Your task to perform on an android device: Search for usb-b on target.com, select the first entry, and add it to the cart. Image 0: 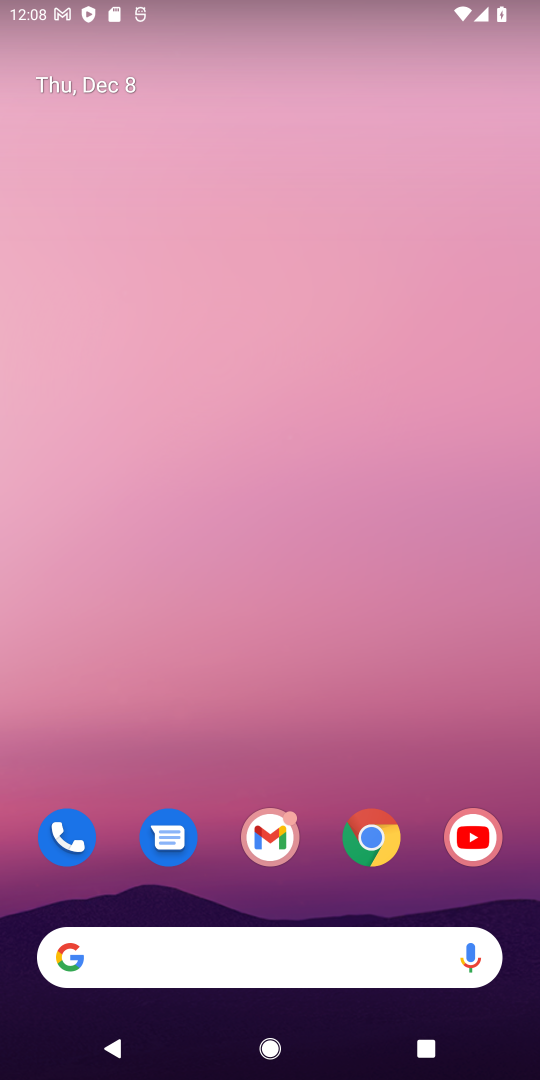
Step 0: click (373, 841)
Your task to perform on an android device: Search for usb-b on target.com, select the first entry, and add it to the cart. Image 1: 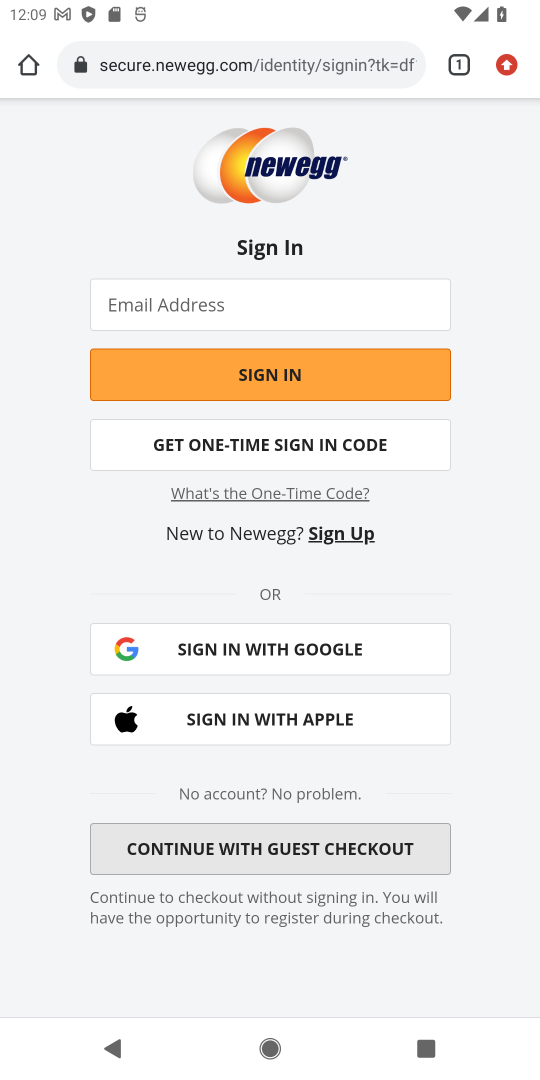
Step 1: click (210, 74)
Your task to perform on an android device: Search for usb-b on target.com, select the first entry, and add it to the cart. Image 2: 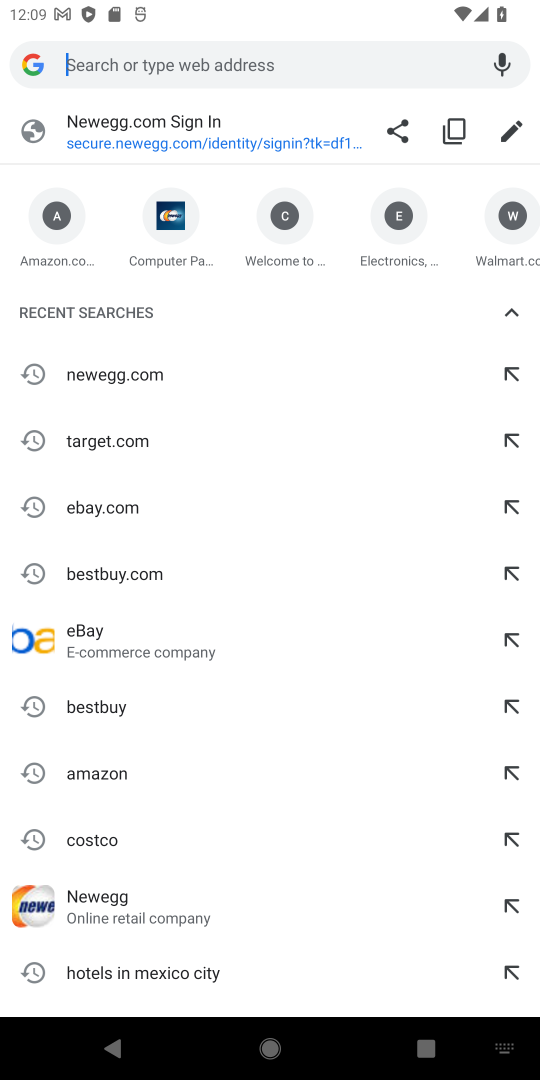
Step 2: type "target.com"
Your task to perform on an android device: Search for usb-b on target.com, select the first entry, and add it to the cart. Image 3: 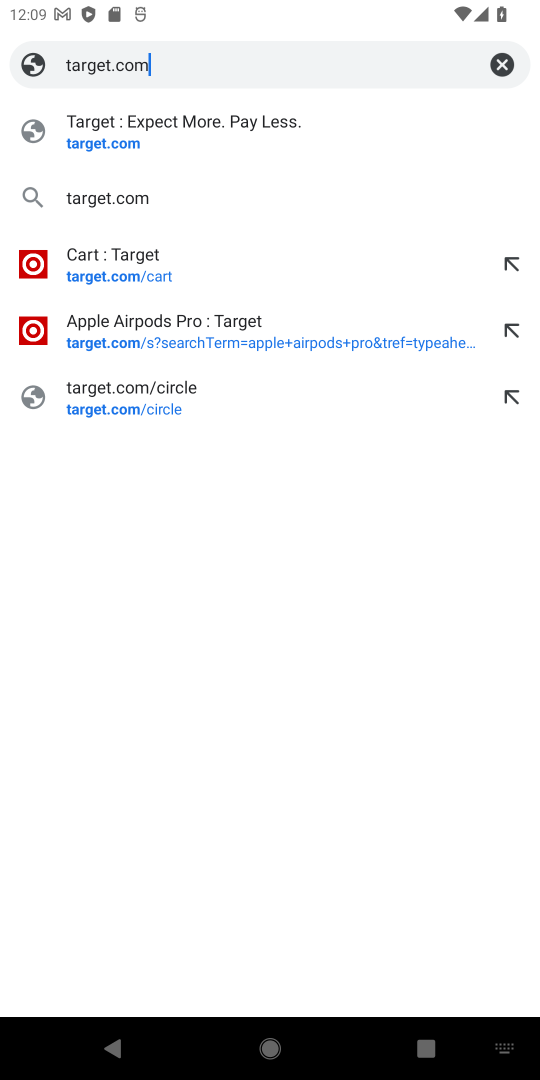
Step 3: click (156, 128)
Your task to perform on an android device: Search for usb-b on target.com, select the first entry, and add it to the cart. Image 4: 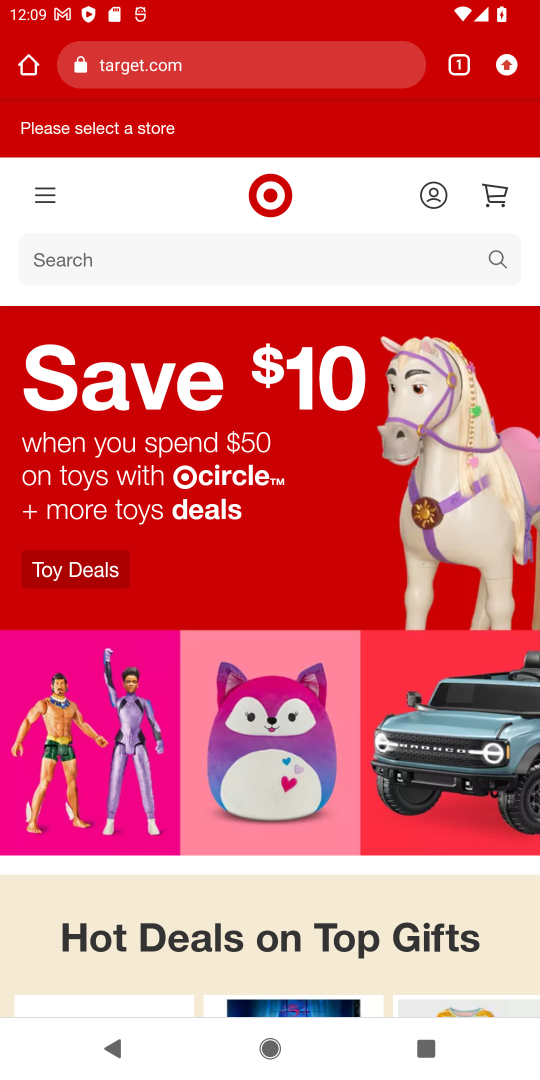
Step 4: click (127, 268)
Your task to perform on an android device: Search for usb-b on target.com, select the first entry, and add it to the cart. Image 5: 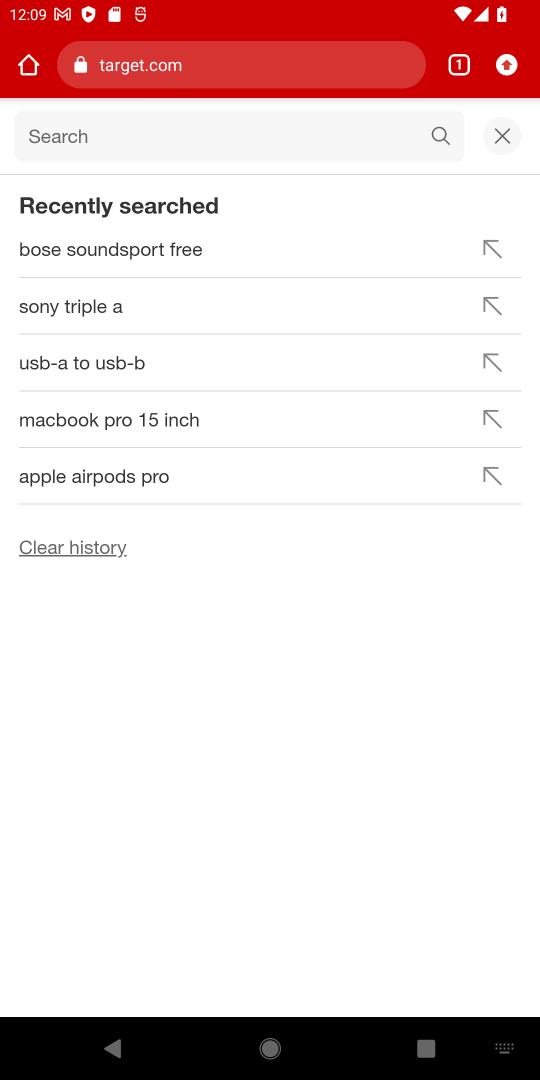
Step 5: type "usb-b"
Your task to perform on an android device: Search for usb-b on target.com, select the first entry, and add it to the cart. Image 6: 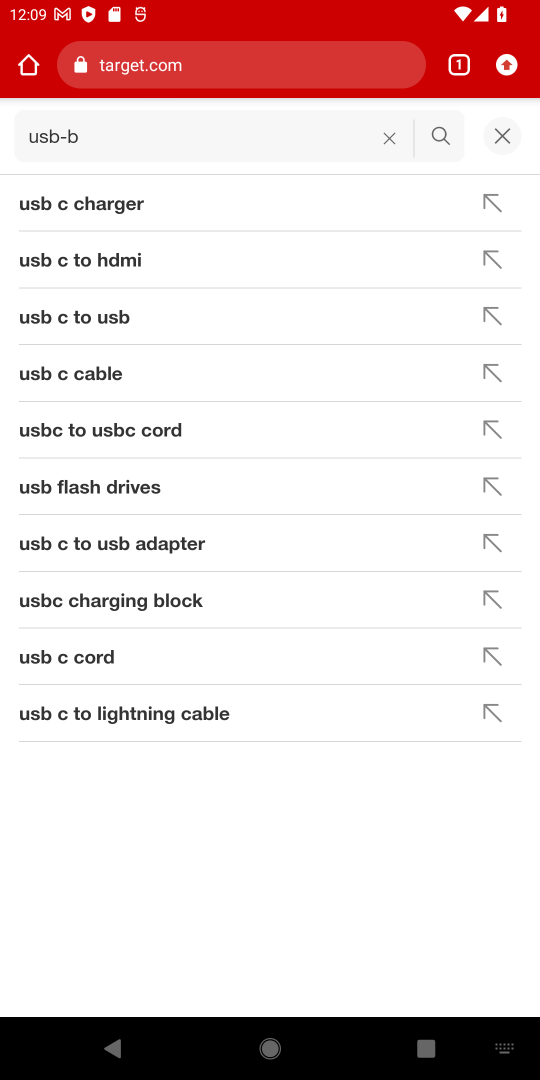
Step 6: press enter
Your task to perform on an android device: Search for usb-b on target.com, select the first entry, and add it to the cart. Image 7: 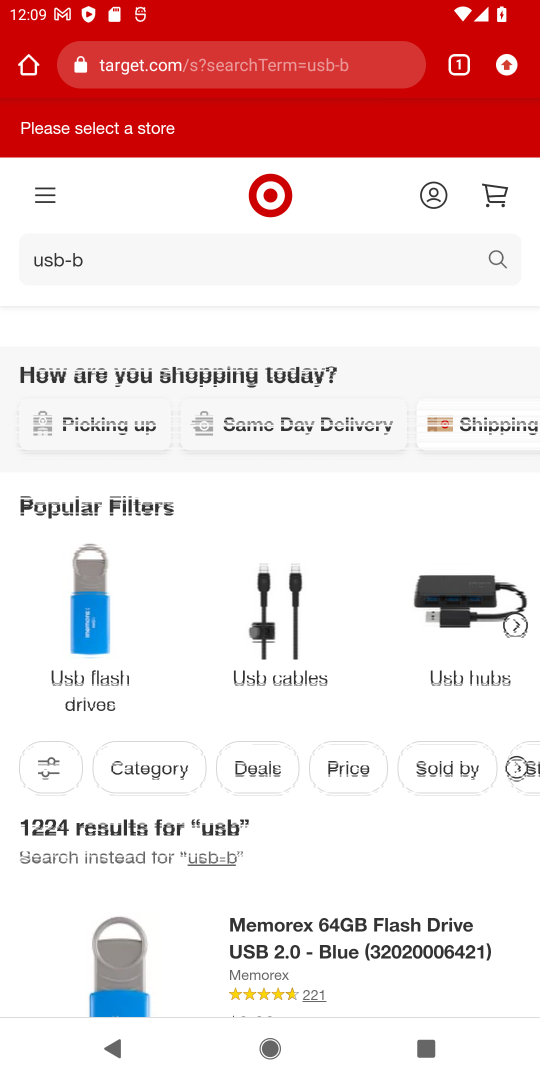
Step 7: drag from (350, 921) to (311, 575)
Your task to perform on an android device: Search for usb-b on target.com, select the first entry, and add it to the cart. Image 8: 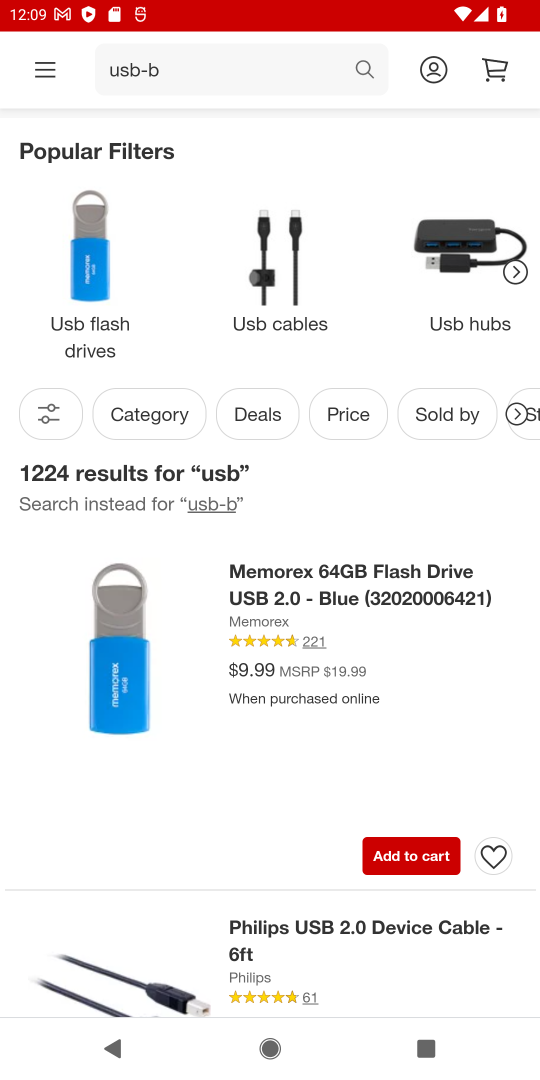
Step 8: drag from (405, 705) to (365, 474)
Your task to perform on an android device: Search for usb-b on target.com, select the first entry, and add it to the cart. Image 9: 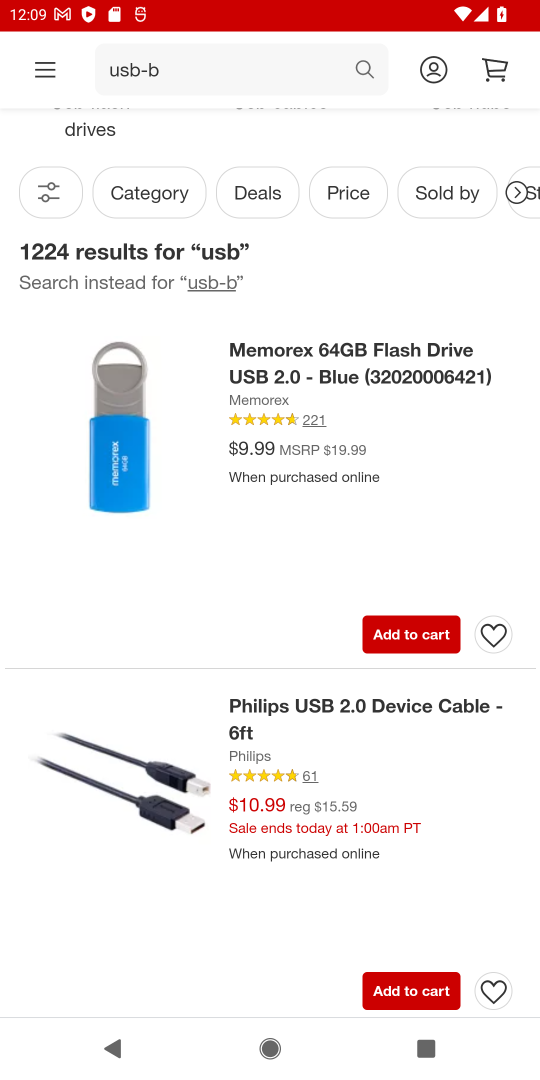
Step 9: click (394, 649)
Your task to perform on an android device: Search for usb-b on target.com, select the first entry, and add it to the cart. Image 10: 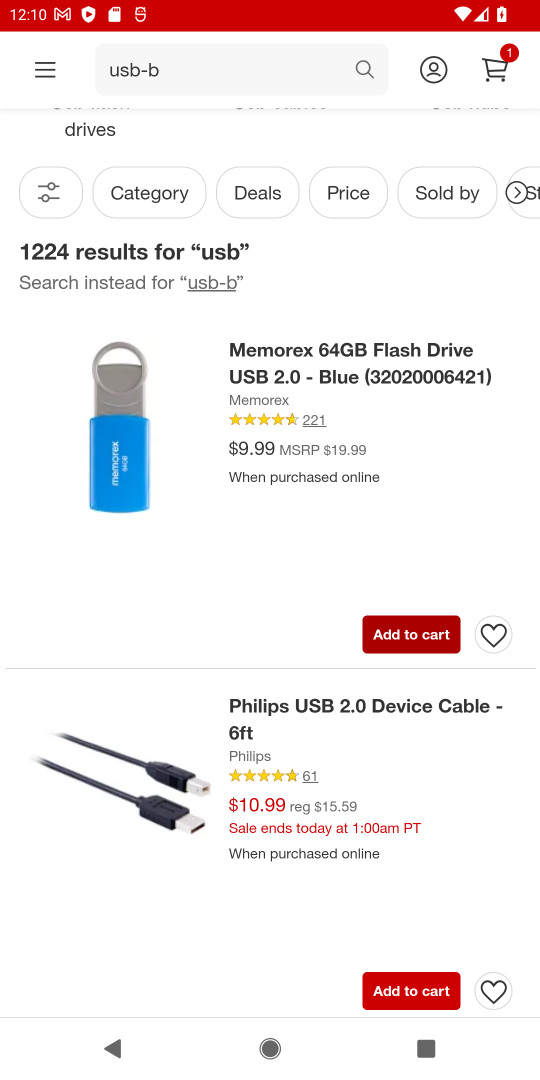
Step 10: click (398, 624)
Your task to perform on an android device: Search for usb-b on target.com, select the first entry, and add it to the cart. Image 11: 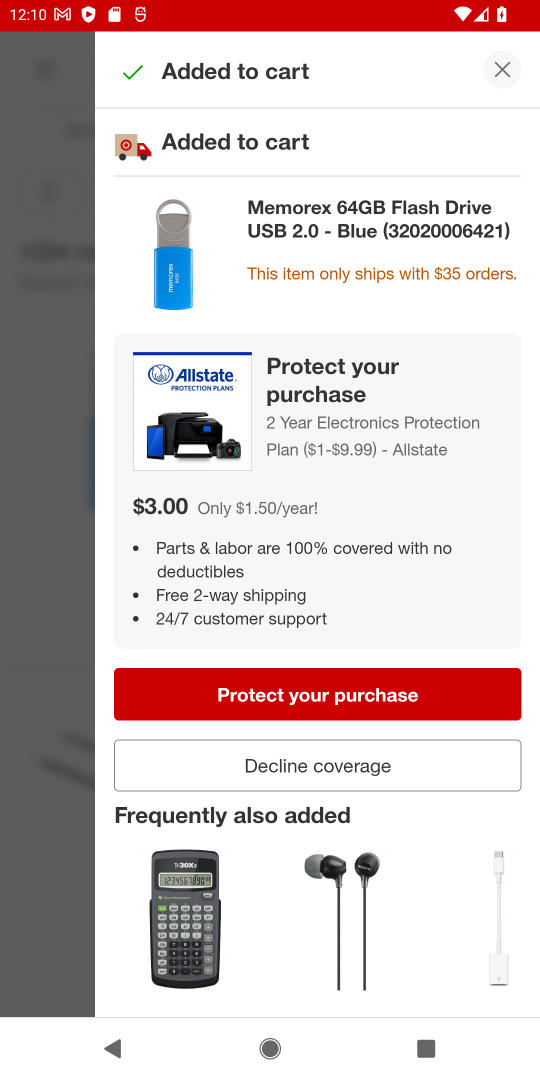
Step 11: task complete